Your task to perform on an android device: delete the emails in spam in the gmail app Image 0: 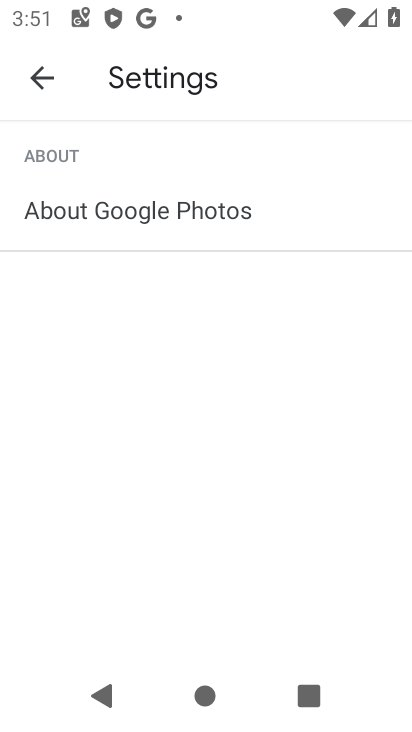
Step 0: press home button
Your task to perform on an android device: delete the emails in spam in the gmail app Image 1: 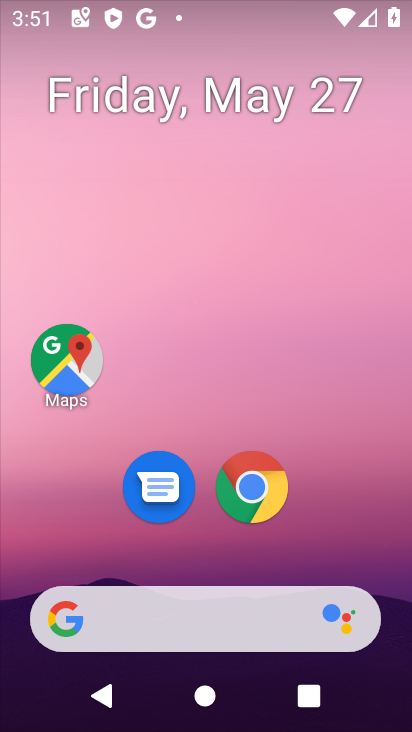
Step 1: drag from (357, 481) to (263, 115)
Your task to perform on an android device: delete the emails in spam in the gmail app Image 2: 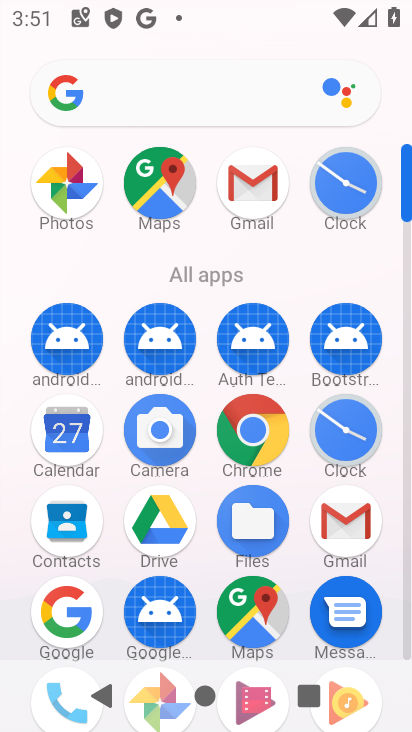
Step 2: click (248, 174)
Your task to perform on an android device: delete the emails in spam in the gmail app Image 3: 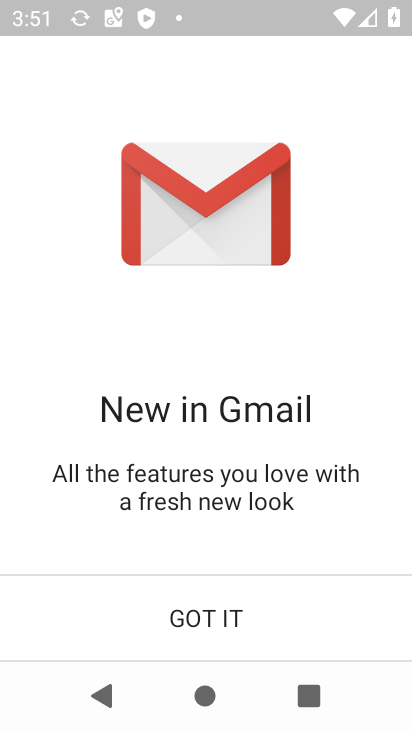
Step 3: click (196, 614)
Your task to perform on an android device: delete the emails in spam in the gmail app Image 4: 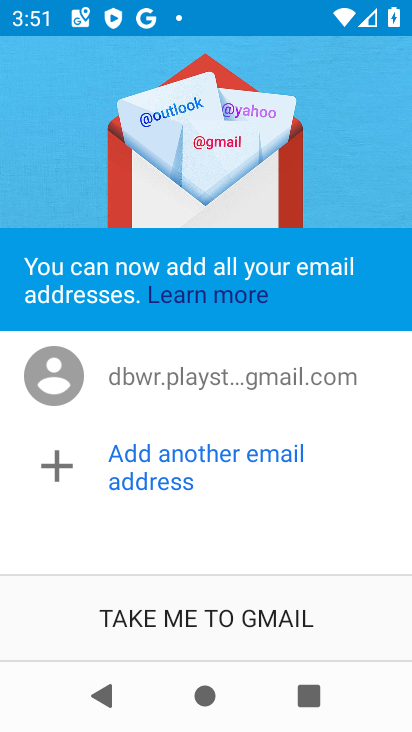
Step 4: click (253, 587)
Your task to perform on an android device: delete the emails in spam in the gmail app Image 5: 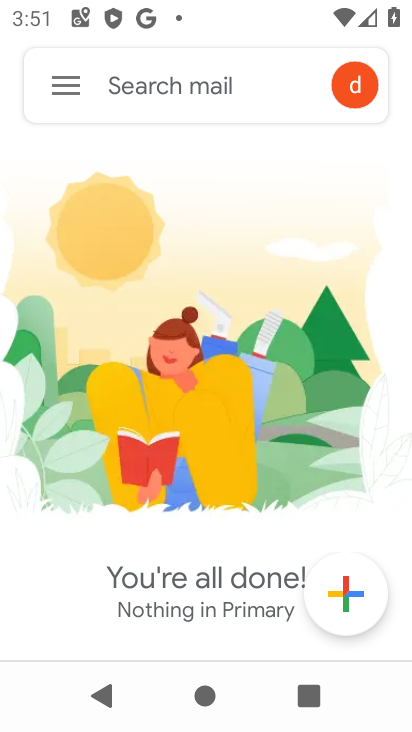
Step 5: click (68, 74)
Your task to perform on an android device: delete the emails in spam in the gmail app Image 6: 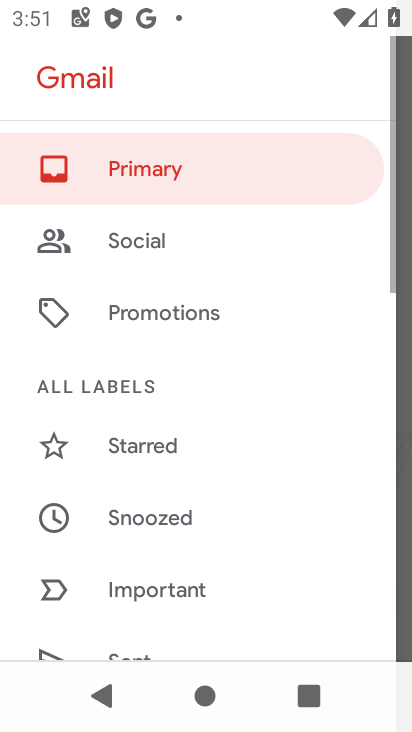
Step 6: drag from (176, 555) to (239, 160)
Your task to perform on an android device: delete the emails in spam in the gmail app Image 7: 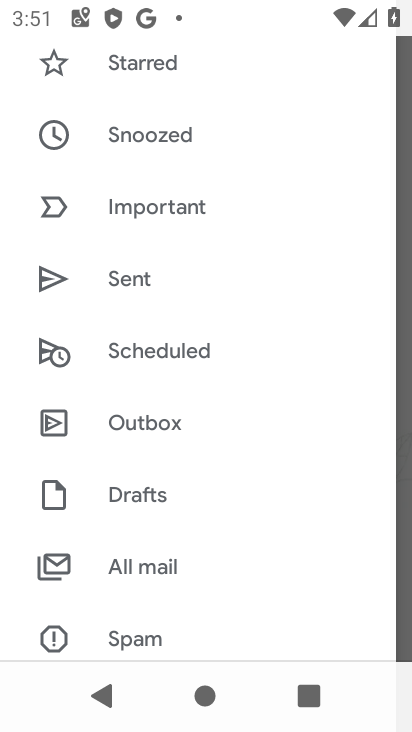
Step 7: drag from (161, 549) to (246, 242)
Your task to perform on an android device: delete the emails in spam in the gmail app Image 8: 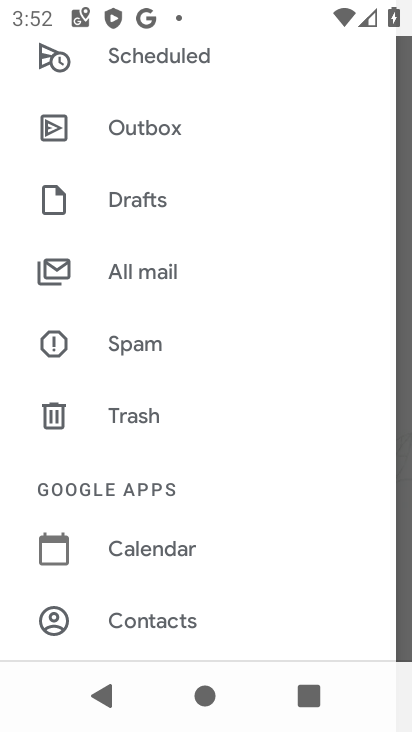
Step 8: click (136, 347)
Your task to perform on an android device: delete the emails in spam in the gmail app Image 9: 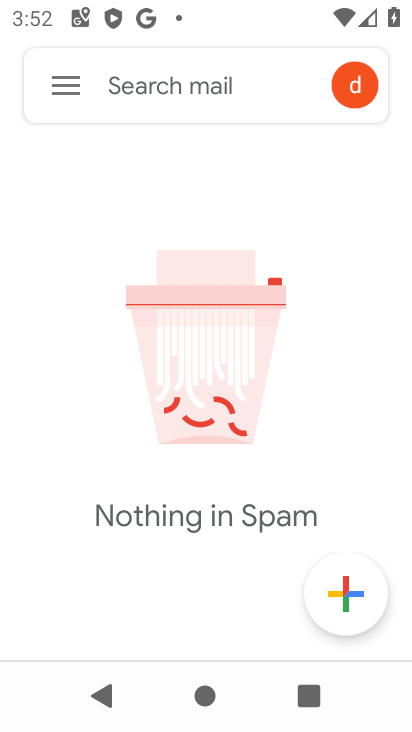
Step 9: task complete